Your task to perform on an android device: find which apps use the phone's location Image 0: 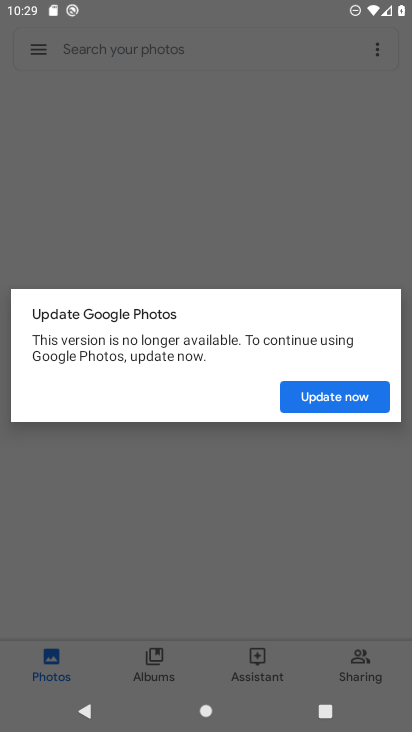
Step 0: drag from (247, 624) to (218, 509)
Your task to perform on an android device: find which apps use the phone's location Image 1: 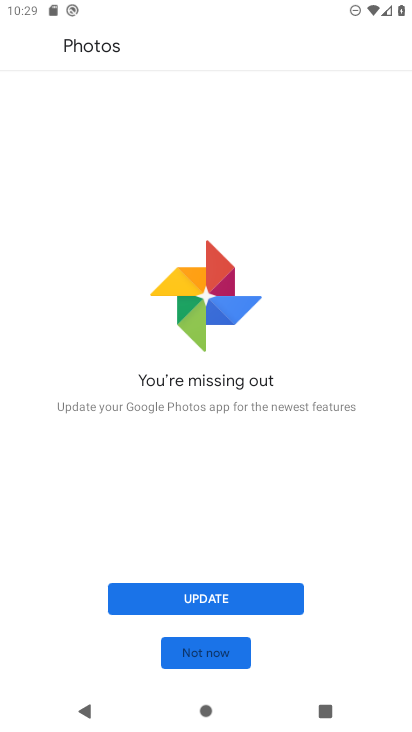
Step 1: press home button
Your task to perform on an android device: find which apps use the phone's location Image 2: 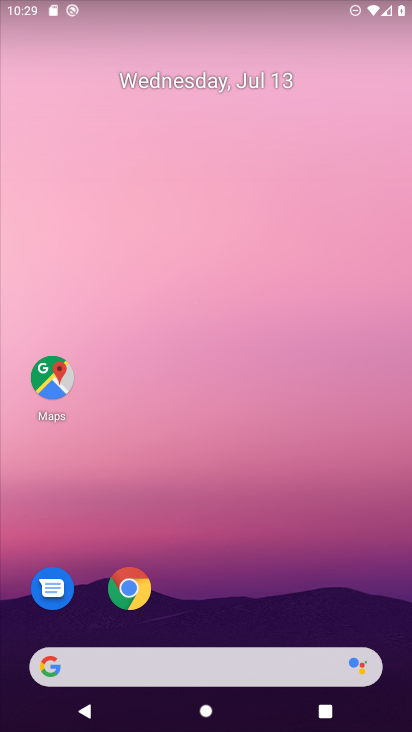
Step 2: drag from (162, 655) to (126, 113)
Your task to perform on an android device: find which apps use the phone's location Image 3: 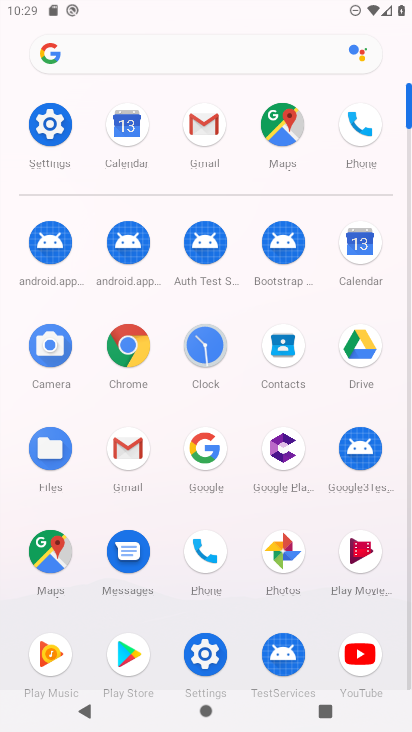
Step 3: click (61, 120)
Your task to perform on an android device: find which apps use the phone's location Image 4: 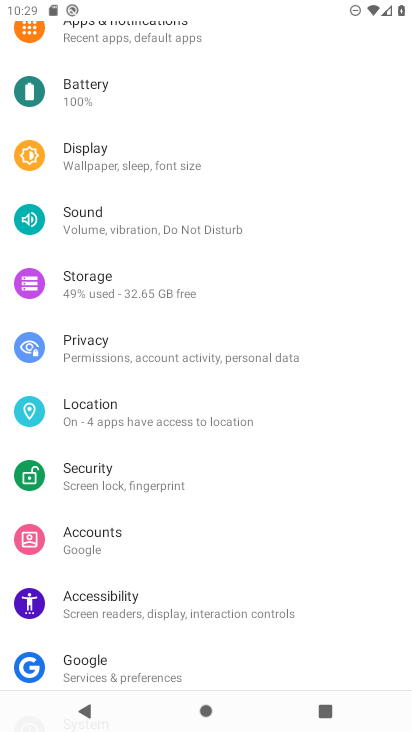
Step 4: click (143, 403)
Your task to perform on an android device: find which apps use the phone's location Image 5: 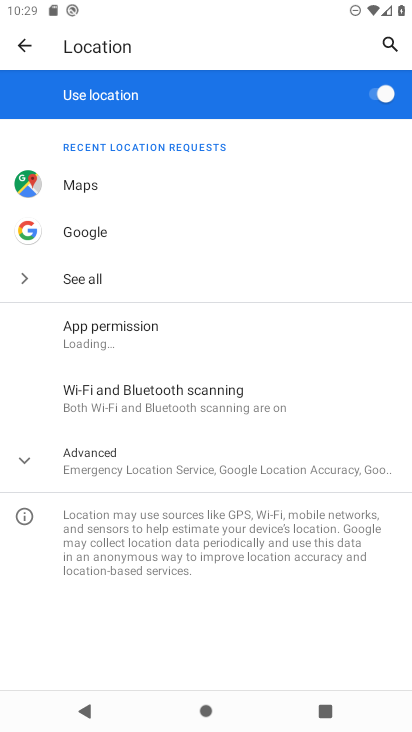
Step 5: click (136, 344)
Your task to perform on an android device: find which apps use the phone's location Image 6: 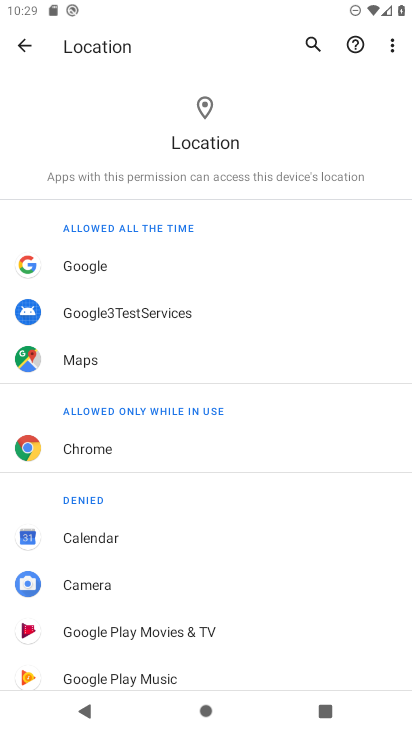
Step 6: task complete